Your task to perform on an android device: Show me popular videos on Youtube Image 0: 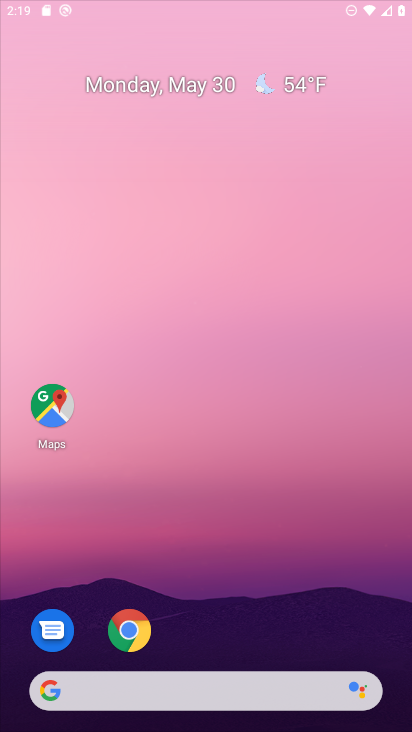
Step 0: press home button
Your task to perform on an android device: Show me popular videos on Youtube Image 1: 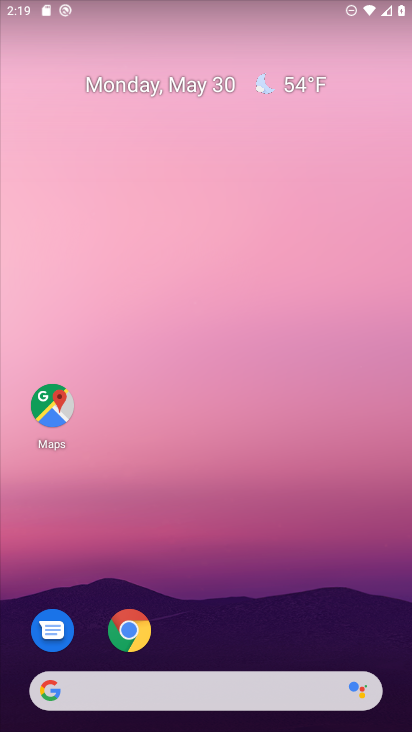
Step 1: drag from (141, 690) to (302, 93)
Your task to perform on an android device: Show me popular videos on Youtube Image 2: 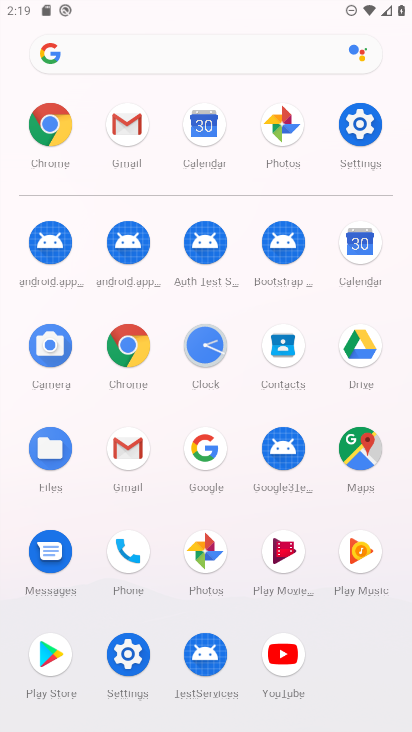
Step 2: click (279, 649)
Your task to perform on an android device: Show me popular videos on Youtube Image 3: 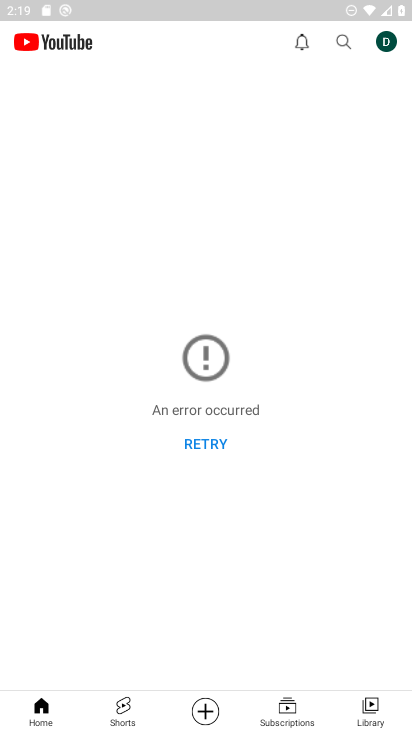
Step 3: click (201, 441)
Your task to perform on an android device: Show me popular videos on Youtube Image 4: 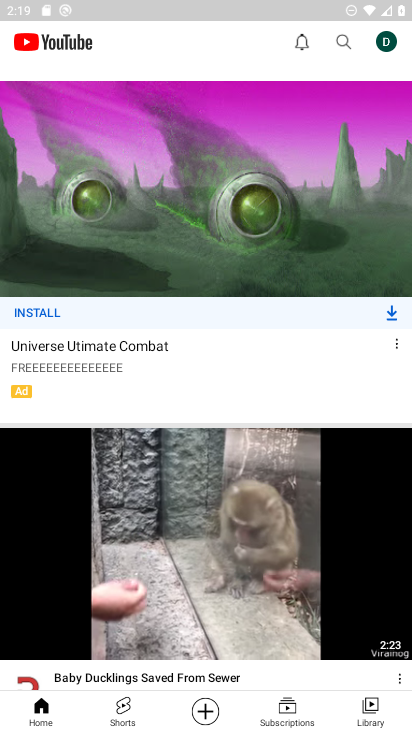
Step 4: task complete